Your task to perform on an android device: turn off picture-in-picture Image 0: 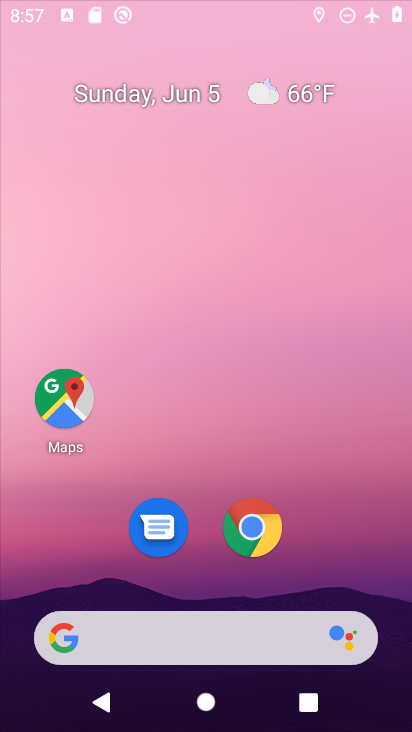
Step 0: click (275, 534)
Your task to perform on an android device: turn off picture-in-picture Image 1: 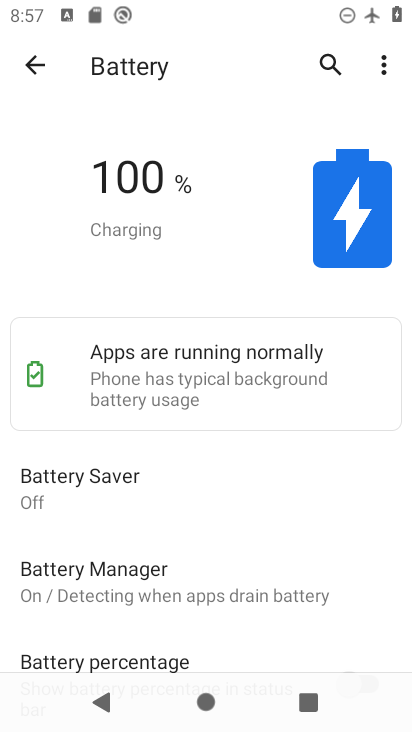
Step 1: press home button
Your task to perform on an android device: turn off picture-in-picture Image 2: 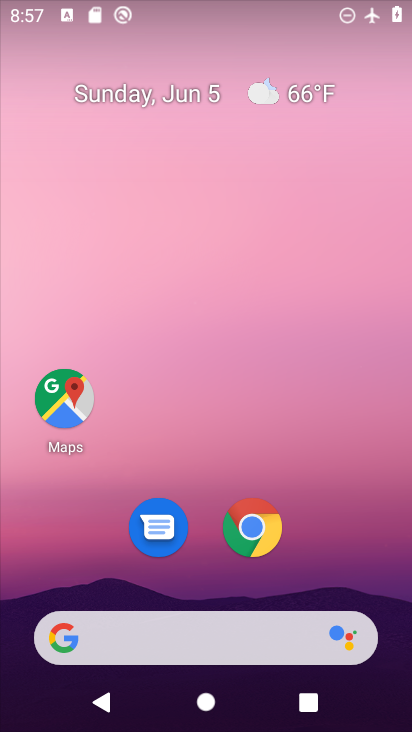
Step 2: click (258, 534)
Your task to perform on an android device: turn off picture-in-picture Image 3: 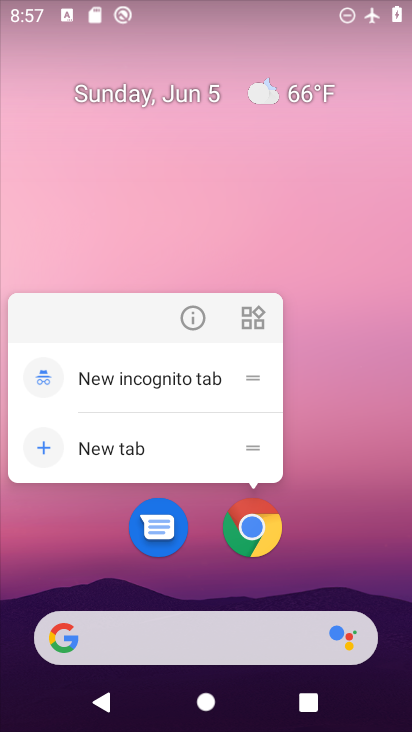
Step 3: click (188, 318)
Your task to perform on an android device: turn off picture-in-picture Image 4: 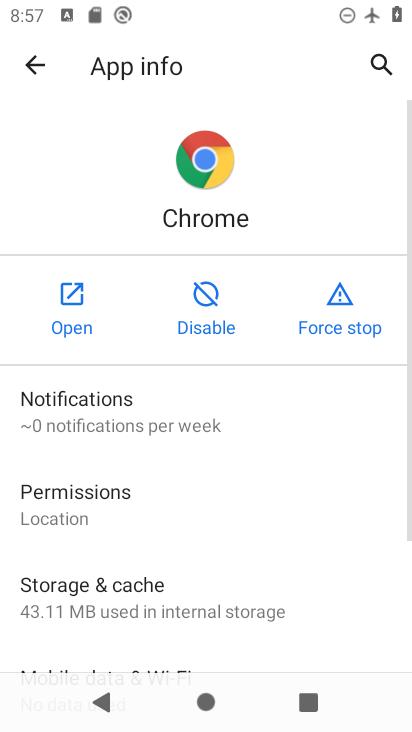
Step 4: drag from (103, 624) to (222, 118)
Your task to perform on an android device: turn off picture-in-picture Image 5: 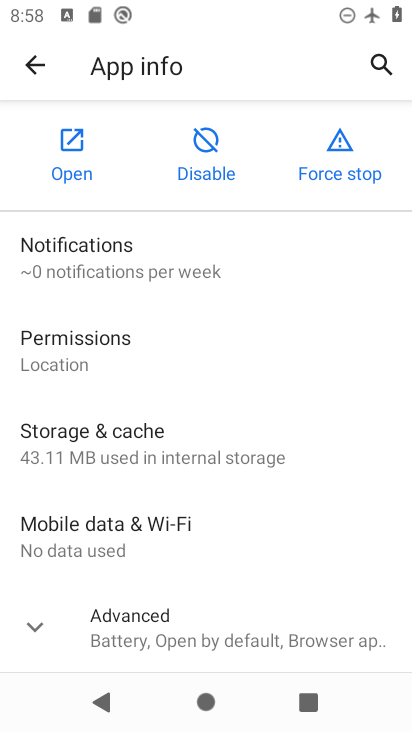
Step 5: click (137, 620)
Your task to perform on an android device: turn off picture-in-picture Image 6: 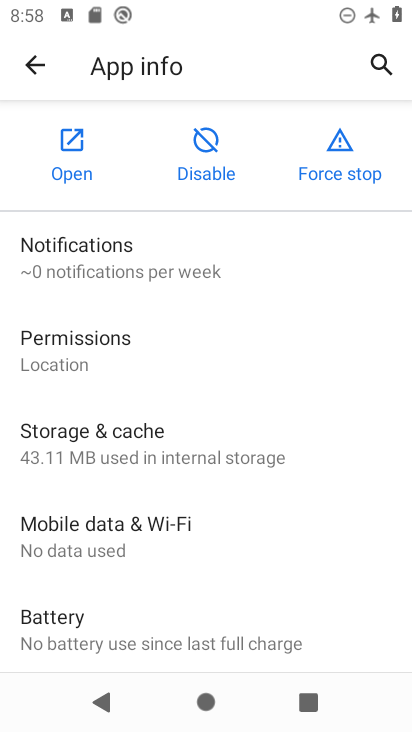
Step 6: drag from (137, 620) to (190, 274)
Your task to perform on an android device: turn off picture-in-picture Image 7: 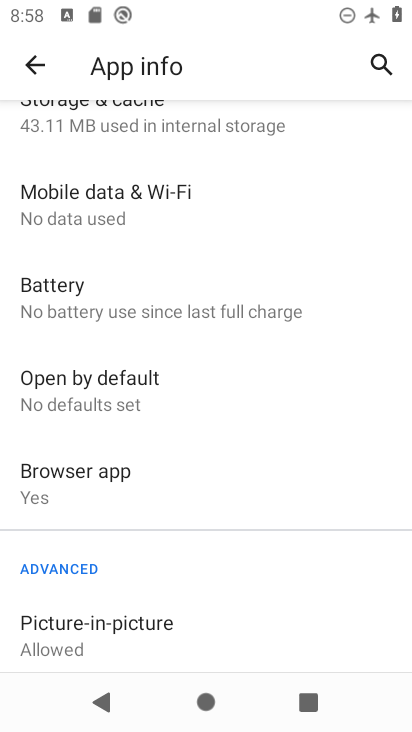
Step 7: click (142, 626)
Your task to perform on an android device: turn off picture-in-picture Image 8: 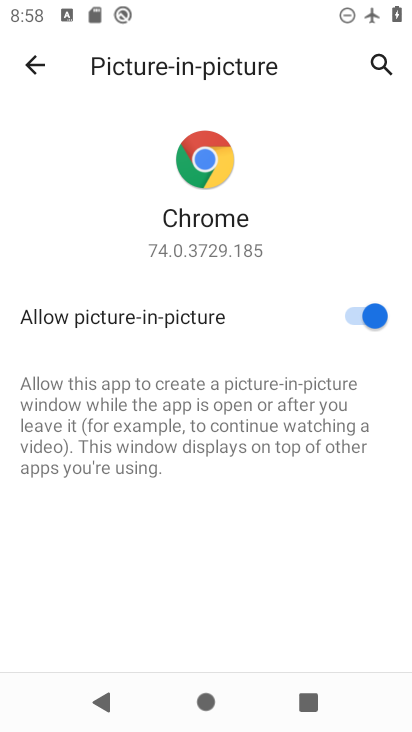
Step 8: click (381, 324)
Your task to perform on an android device: turn off picture-in-picture Image 9: 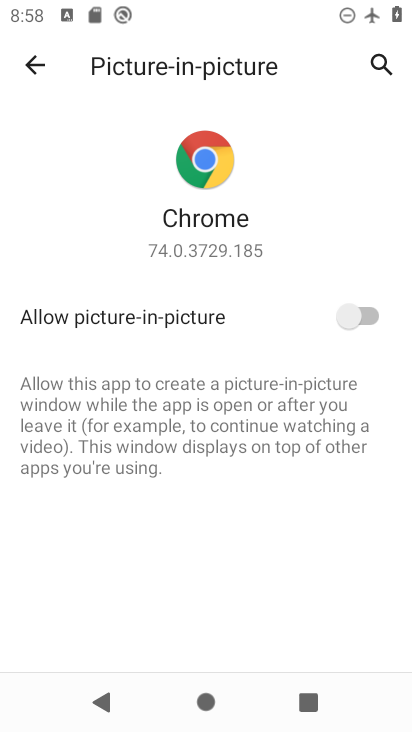
Step 9: task complete